Your task to perform on an android device: When is my next meeting? Image 0: 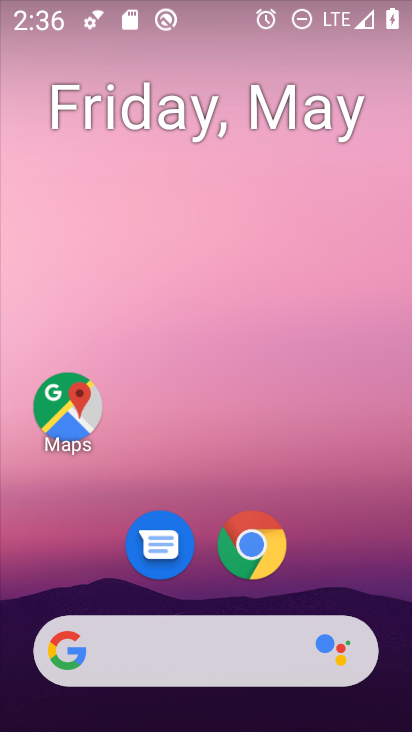
Step 0: drag from (305, 530) to (295, 216)
Your task to perform on an android device: When is my next meeting? Image 1: 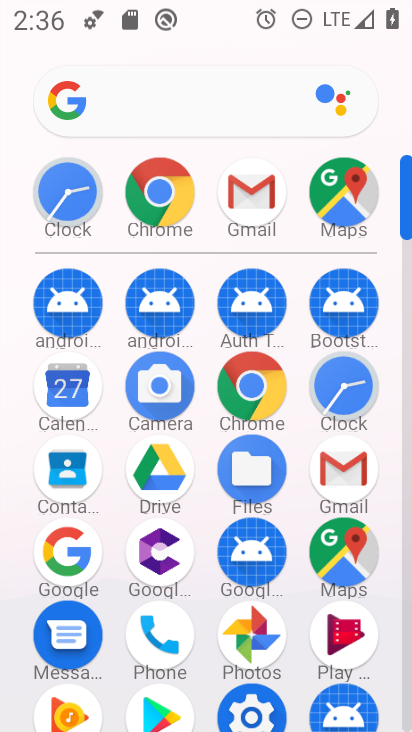
Step 1: click (66, 392)
Your task to perform on an android device: When is my next meeting? Image 2: 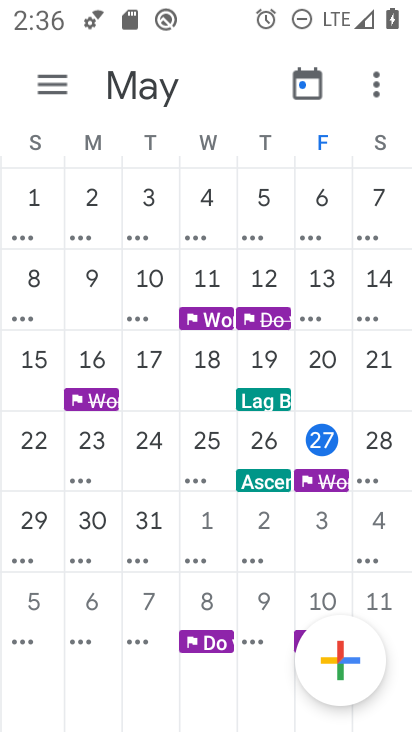
Step 2: click (359, 440)
Your task to perform on an android device: When is my next meeting? Image 3: 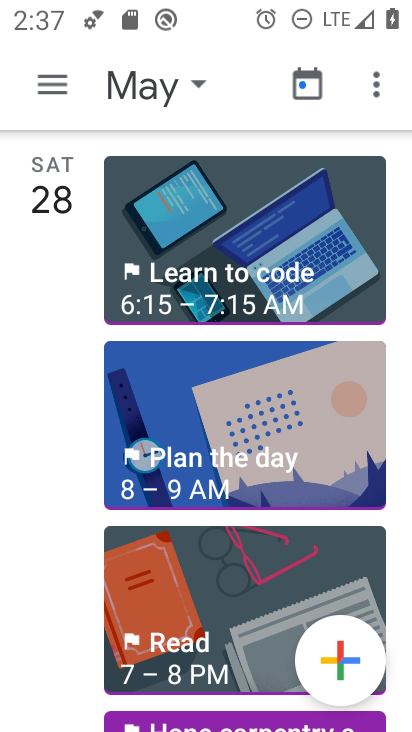
Step 3: task complete